Your task to perform on an android device: turn off smart reply in the gmail app Image 0: 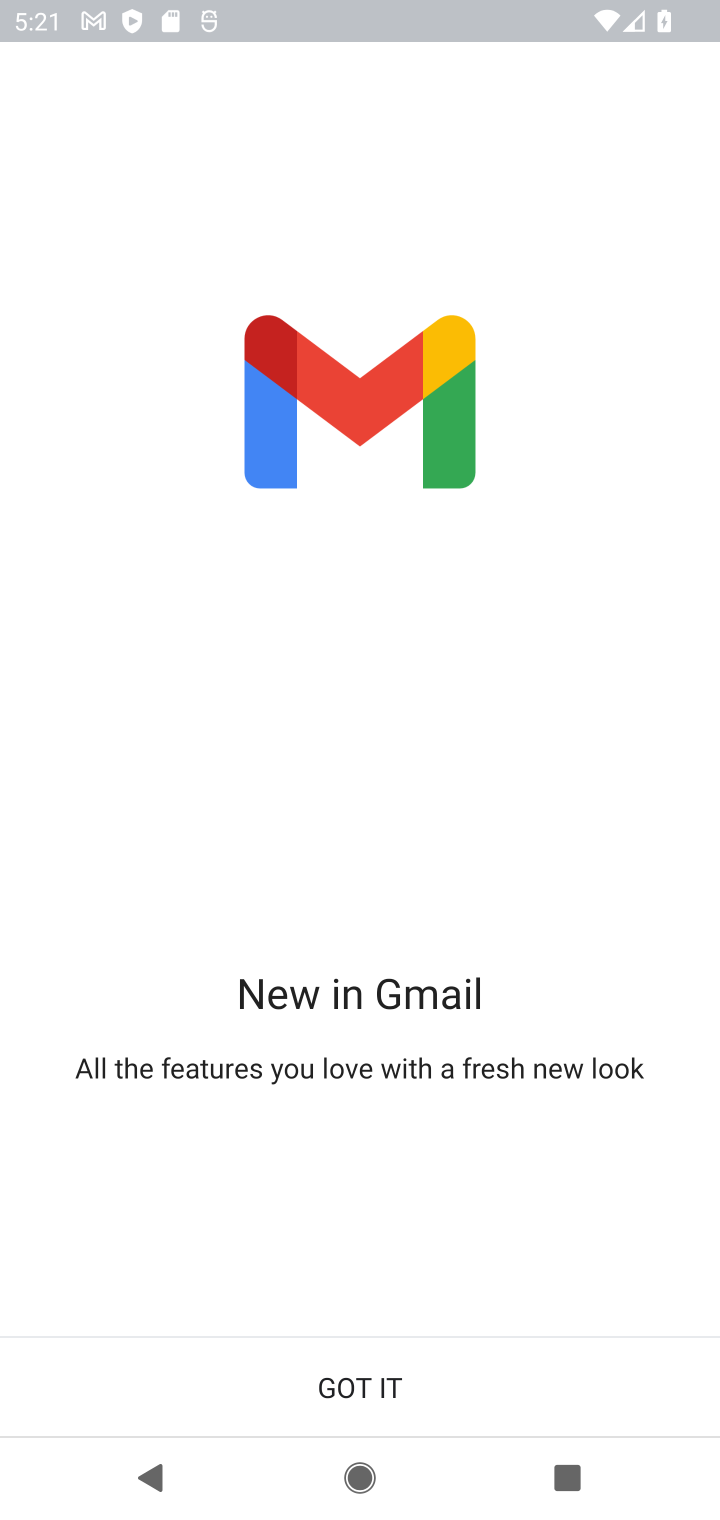
Step 0: click (402, 1355)
Your task to perform on an android device: turn off smart reply in the gmail app Image 1: 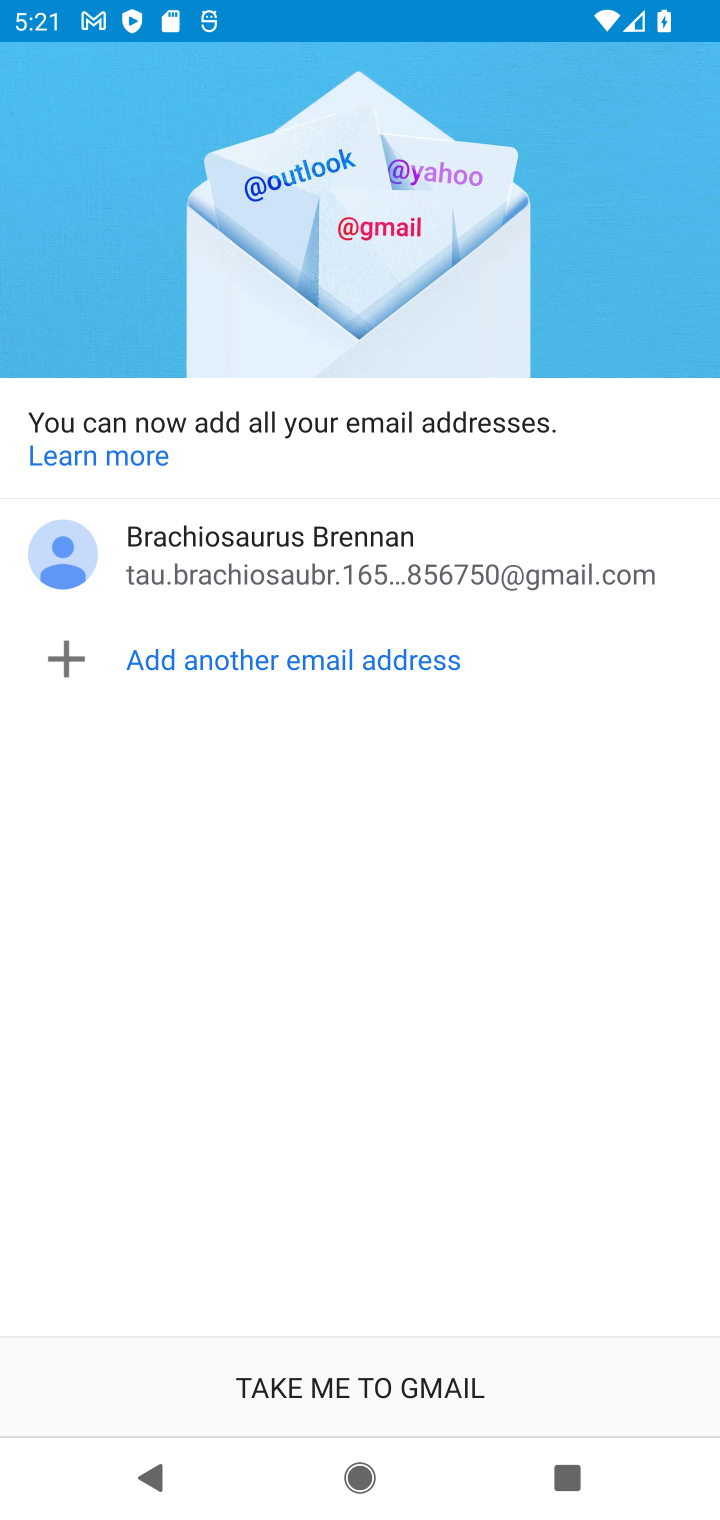
Step 1: click (469, 1361)
Your task to perform on an android device: turn off smart reply in the gmail app Image 2: 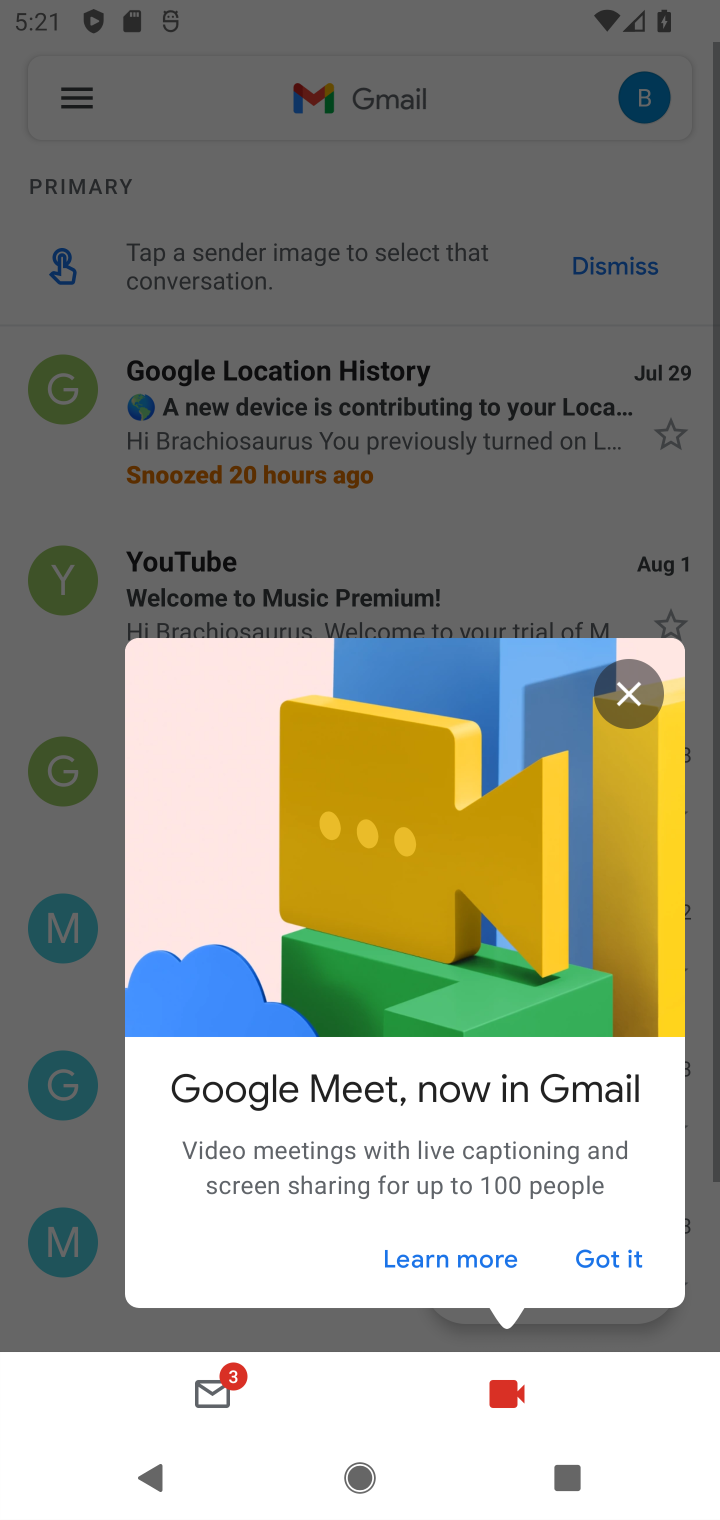
Step 2: click (621, 712)
Your task to perform on an android device: turn off smart reply in the gmail app Image 3: 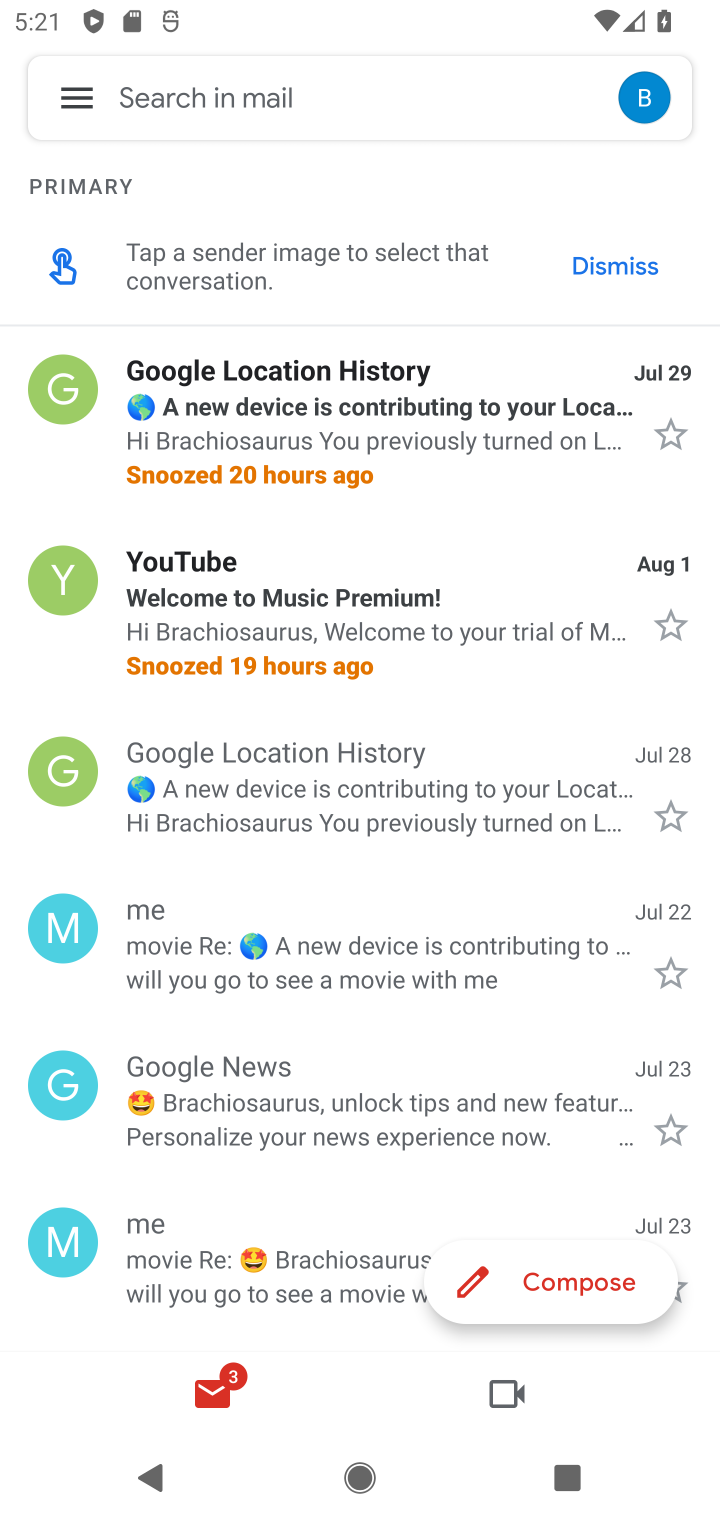
Step 3: click (74, 119)
Your task to perform on an android device: turn off smart reply in the gmail app Image 4: 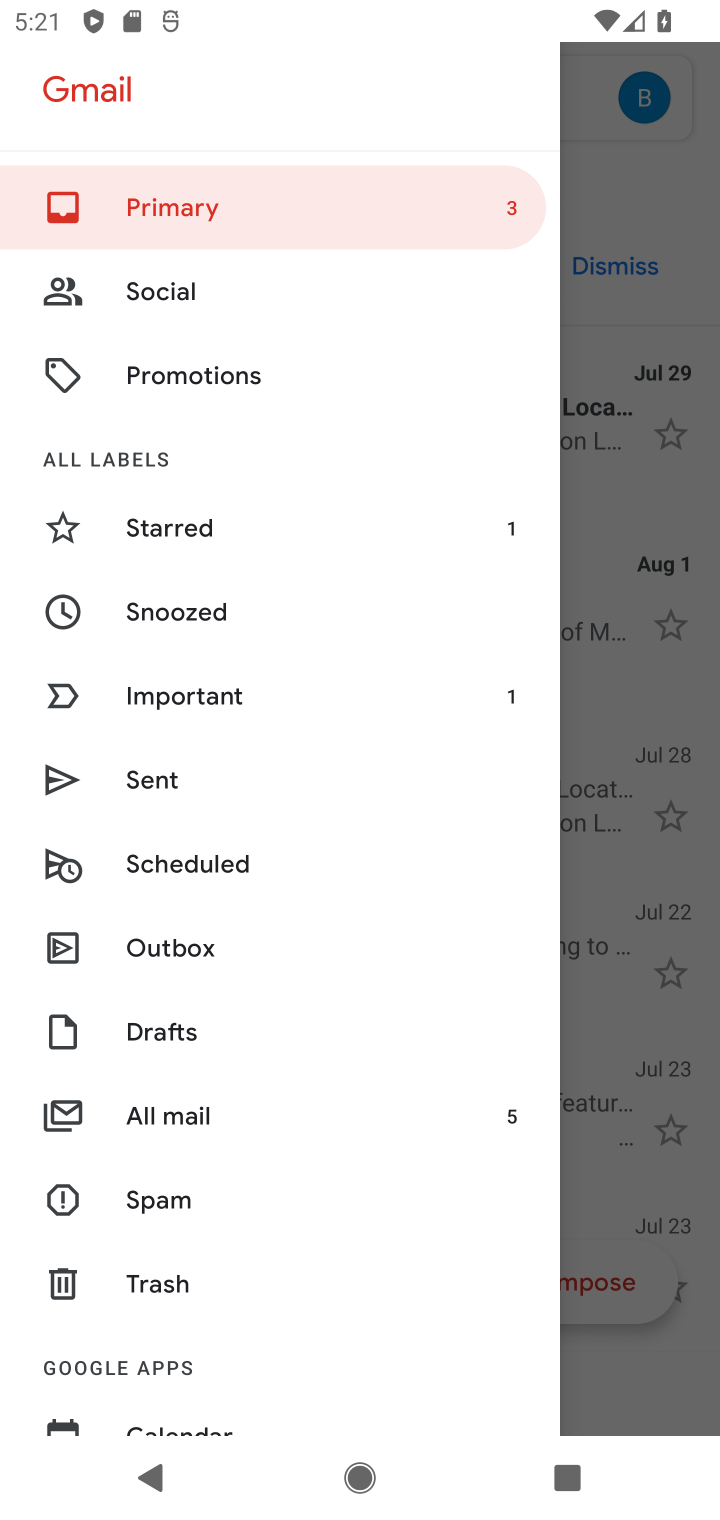
Step 4: drag from (163, 1374) to (340, 784)
Your task to perform on an android device: turn off smart reply in the gmail app Image 5: 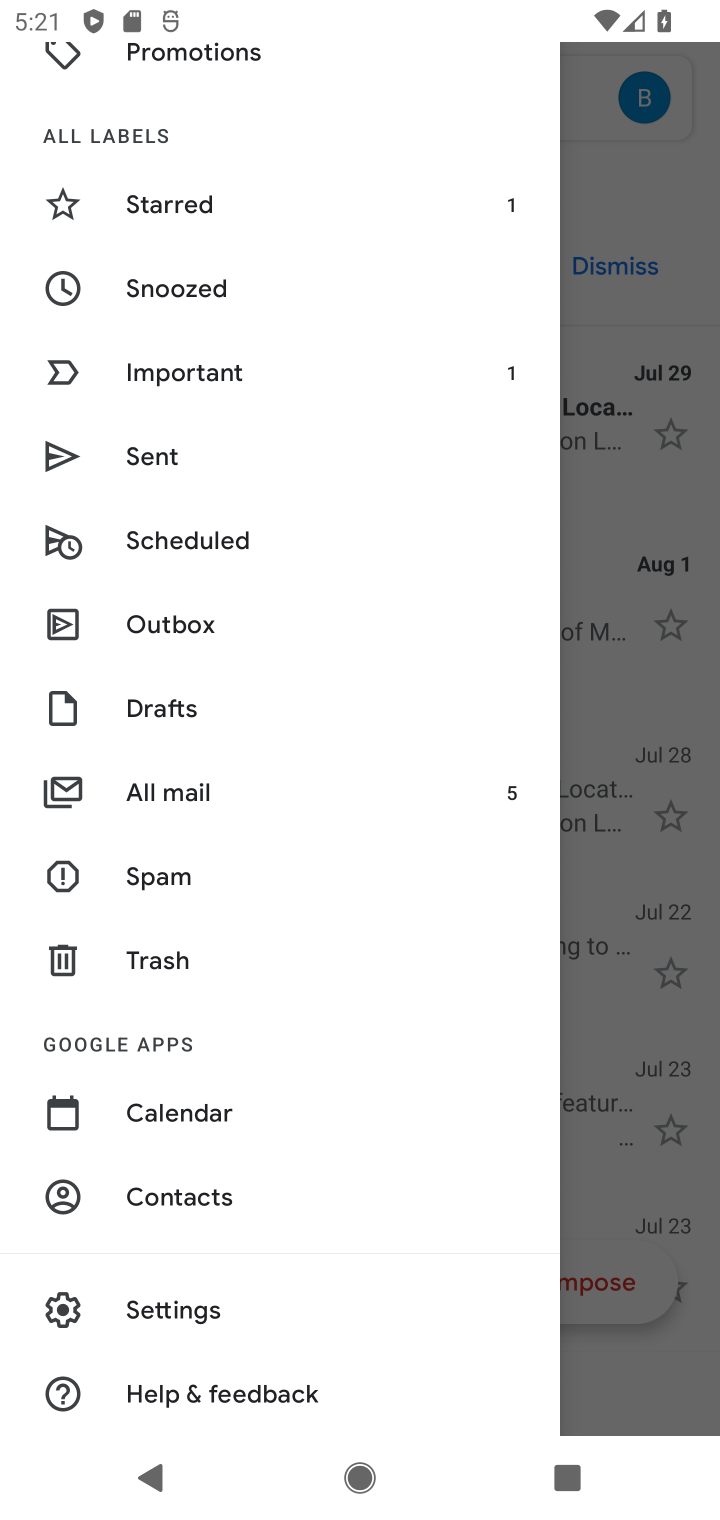
Step 5: click (185, 1297)
Your task to perform on an android device: turn off smart reply in the gmail app Image 6: 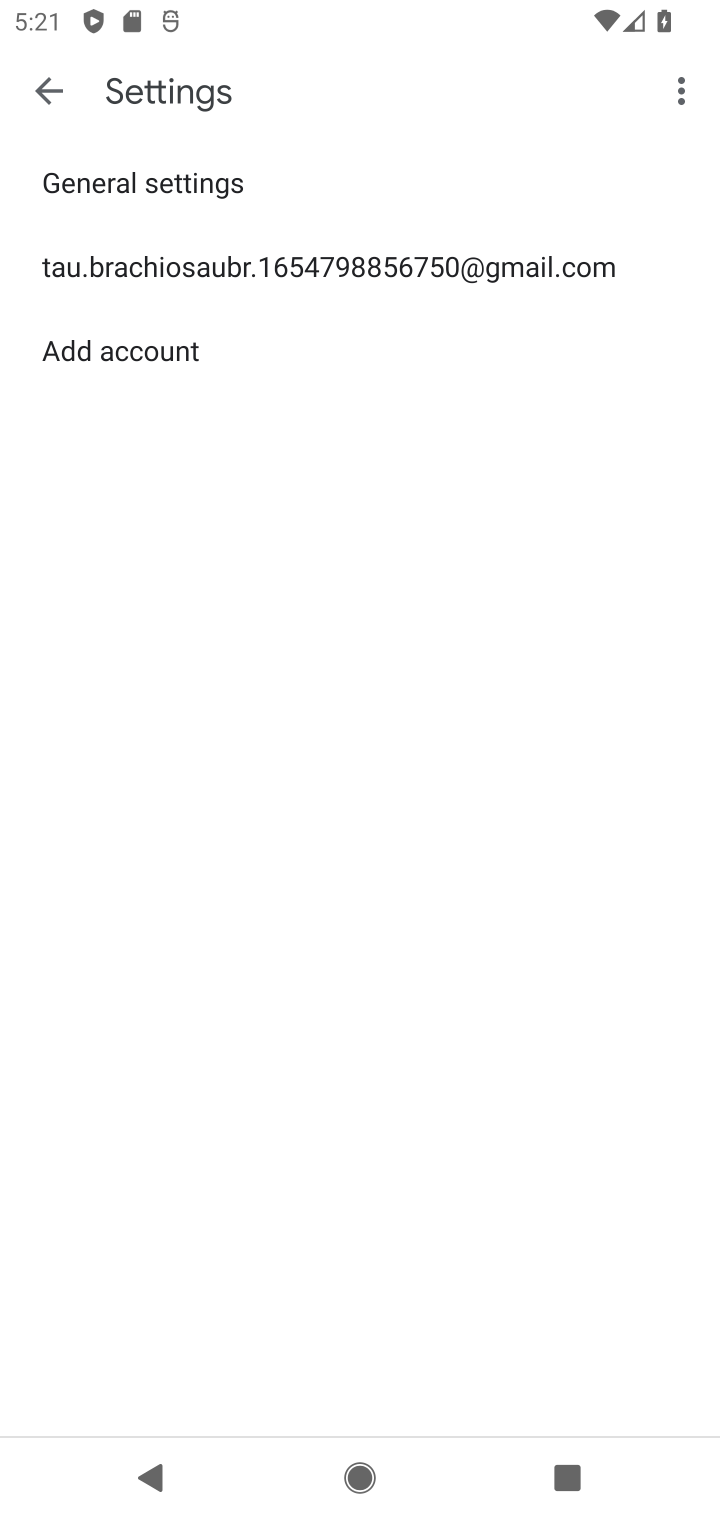
Step 6: click (229, 261)
Your task to perform on an android device: turn off smart reply in the gmail app Image 7: 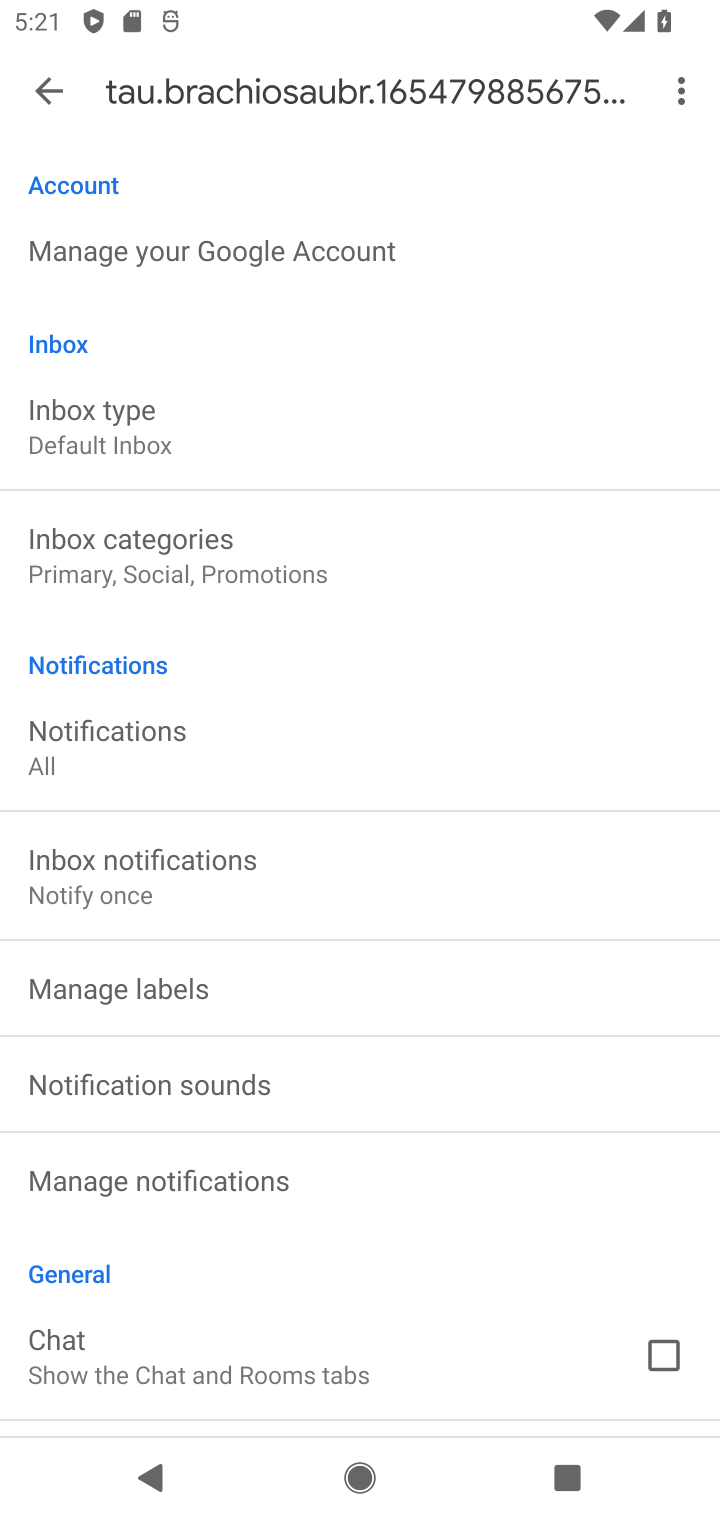
Step 7: drag from (408, 1176) to (425, 278)
Your task to perform on an android device: turn off smart reply in the gmail app Image 8: 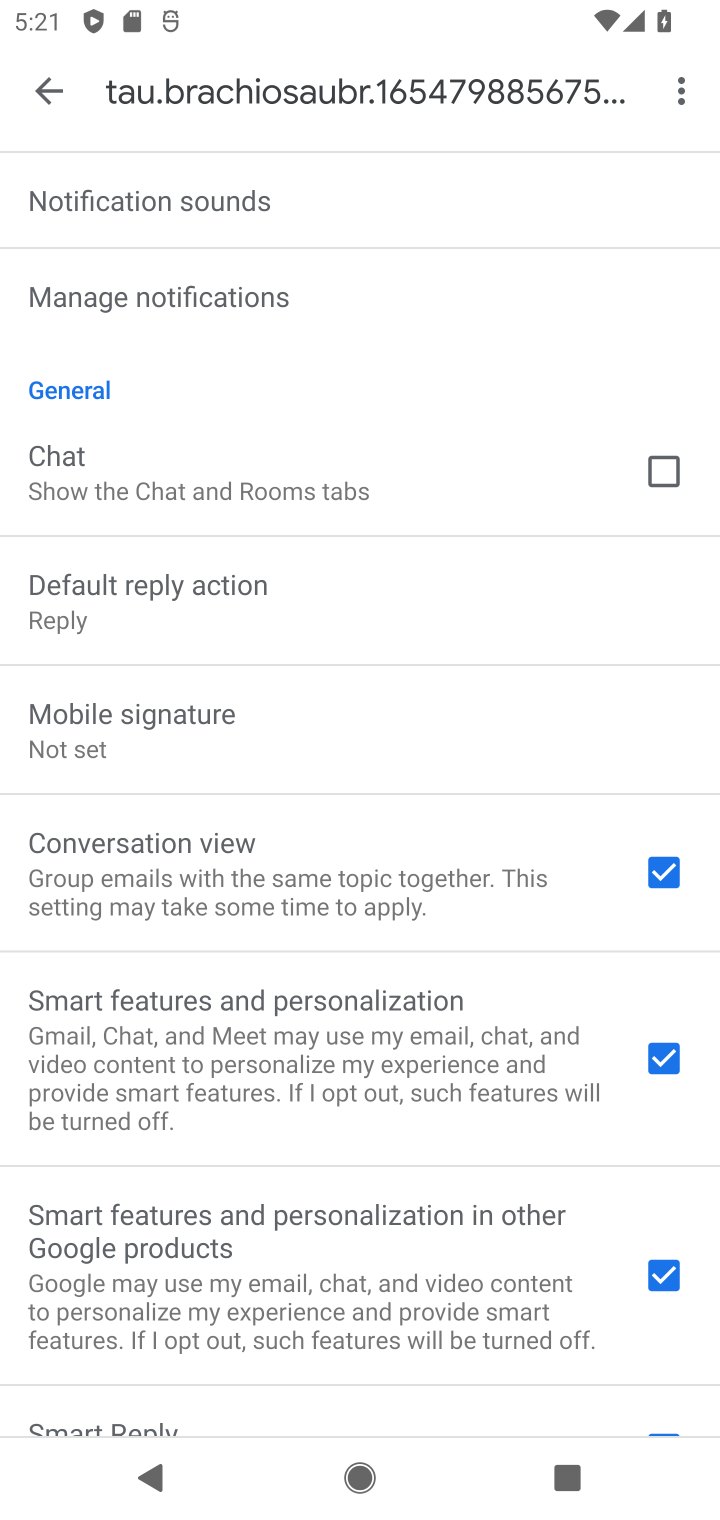
Step 8: drag from (151, 1204) to (304, 855)
Your task to perform on an android device: turn off smart reply in the gmail app Image 9: 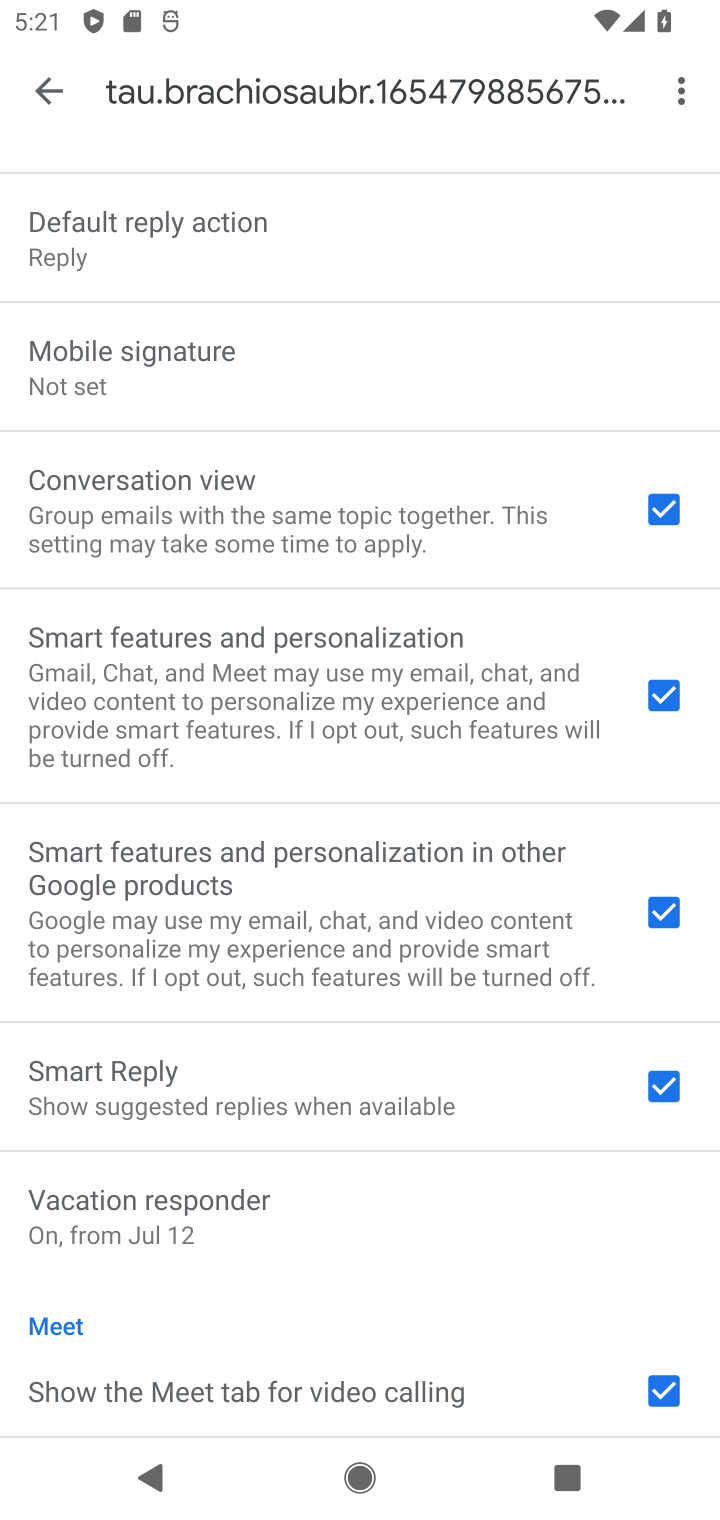
Step 9: click (664, 1075)
Your task to perform on an android device: turn off smart reply in the gmail app Image 10: 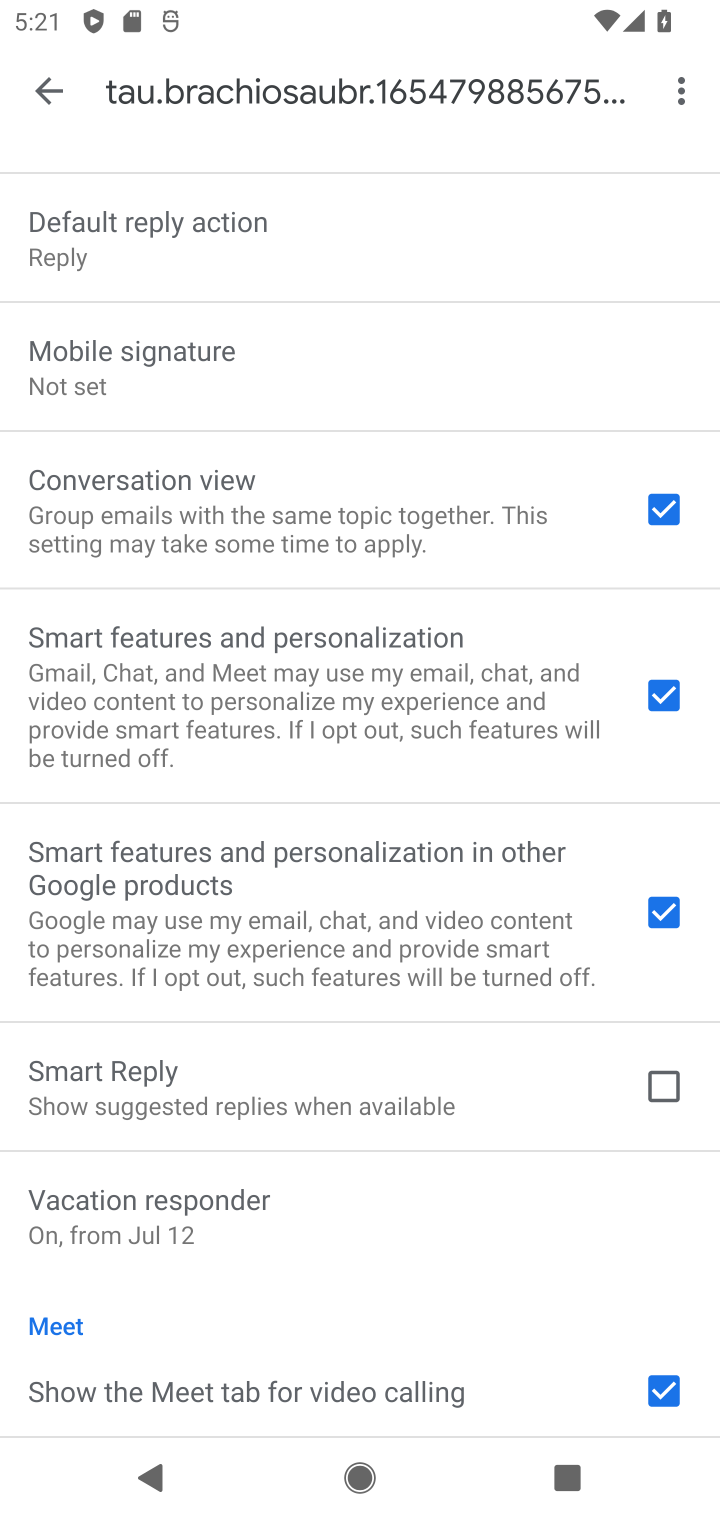
Step 10: task complete